Your task to perform on an android device: toggle location history Image 0: 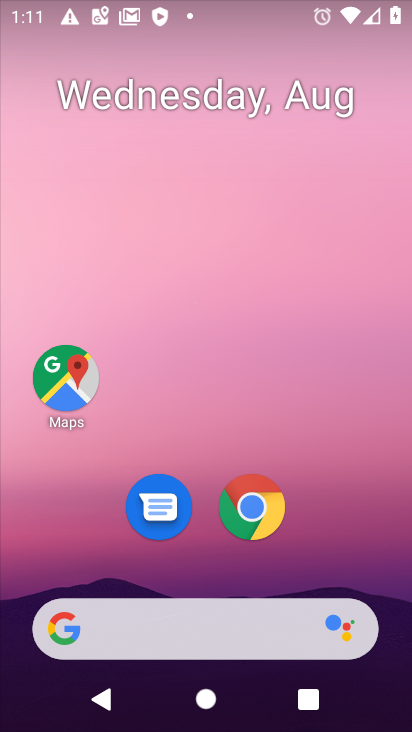
Step 0: drag from (223, 575) to (171, 0)
Your task to perform on an android device: toggle location history Image 1: 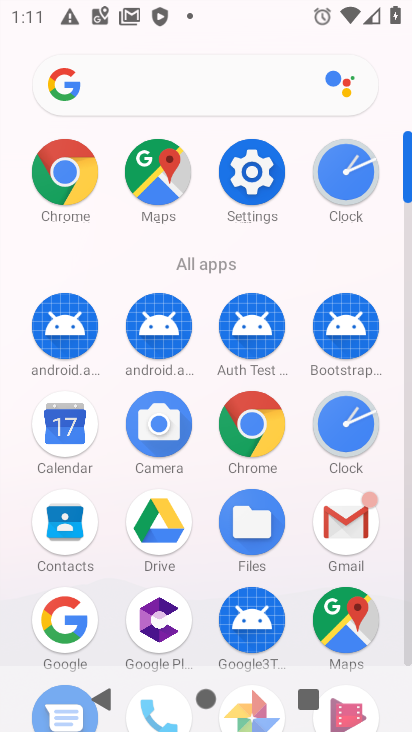
Step 1: click (223, 170)
Your task to perform on an android device: toggle location history Image 2: 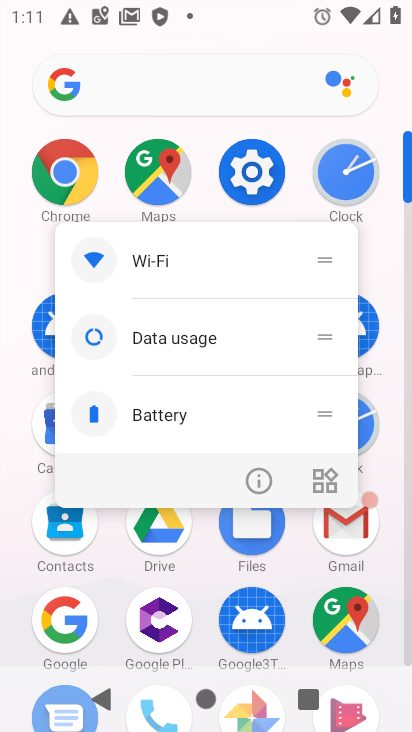
Step 2: click (239, 166)
Your task to perform on an android device: toggle location history Image 3: 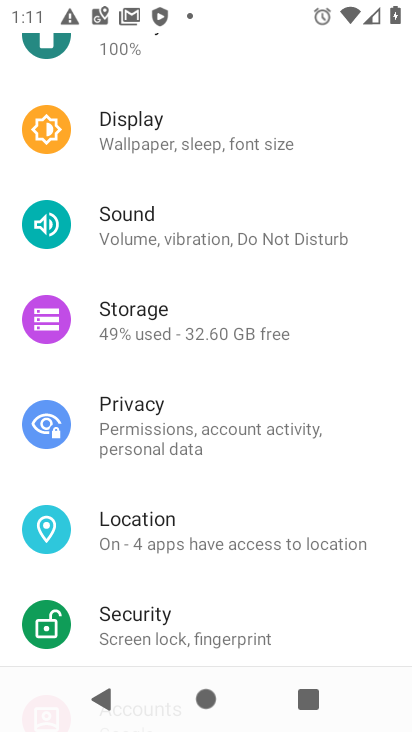
Step 3: click (190, 511)
Your task to perform on an android device: toggle location history Image 4: 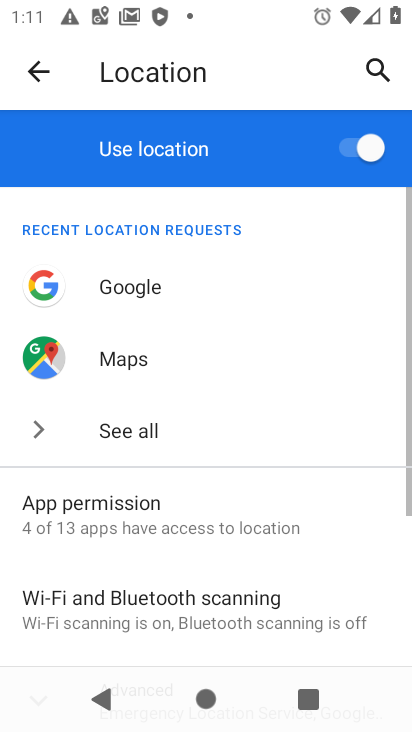
Step 4: drag from (148, 589) to (148, 159)
Your task to perform on an android device: toggle location history Image 5: 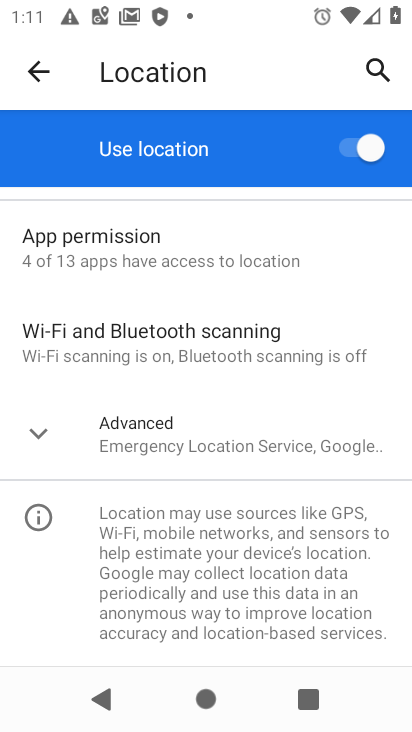
Step 5: click (210, 449)
Your task to perform on an android device: toggle location history Image 6: 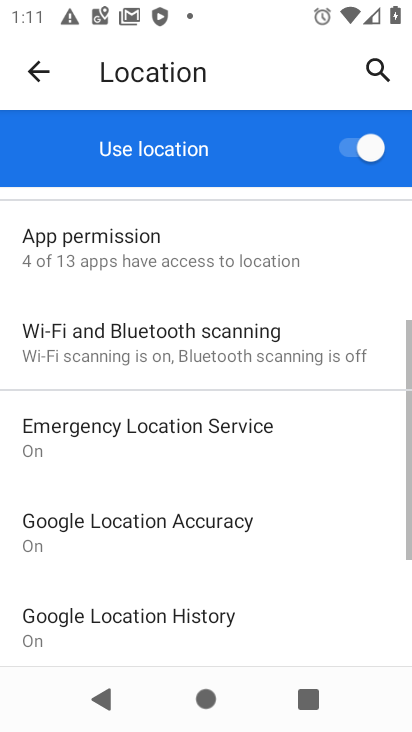
Step 6: drag from (210, 449) to (190, 210)
Your task to perform on an android device: toggle location history Image 7: 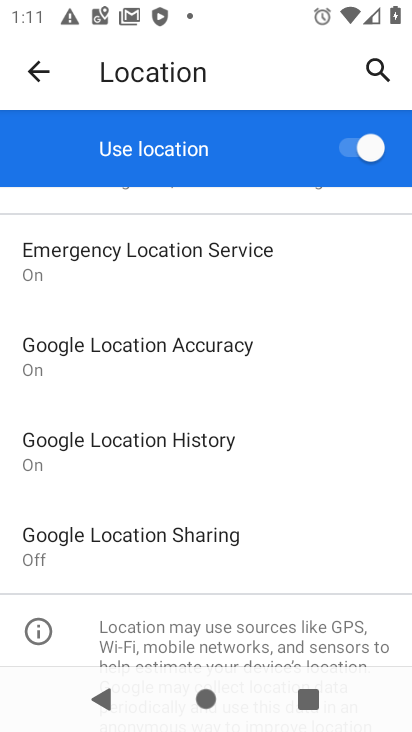
Step 7: click (166, 450)
Your task to perform on an android device: toggle location history Image 8: 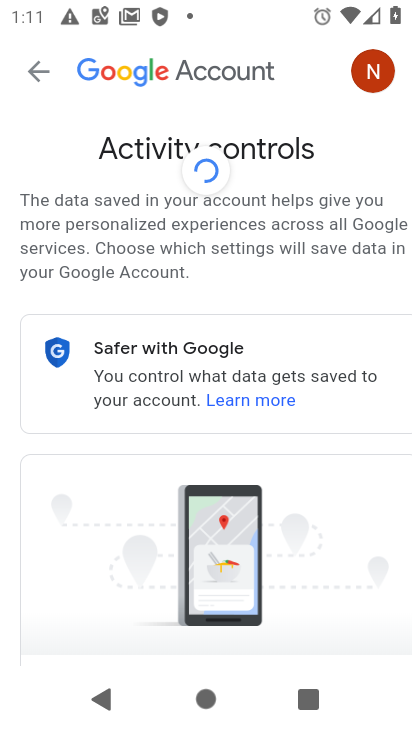
Step 8: drag from (236, 543) to (167, 55)
Your task to perform on an android device: toggle location history Image 9: 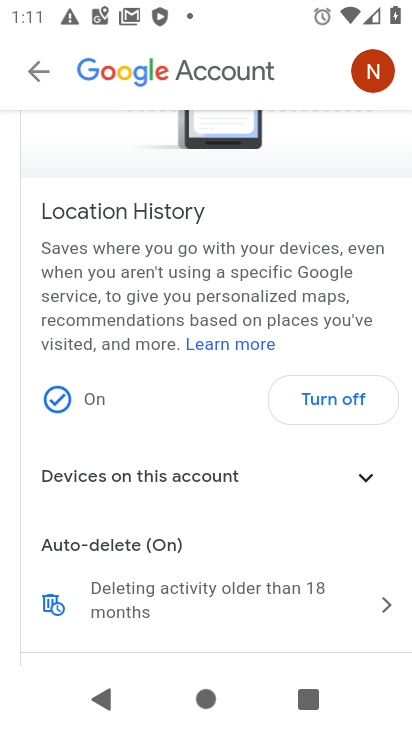
Step 9: click (288, 401)
Your task to perform on an android device: toggle location history Image 10: 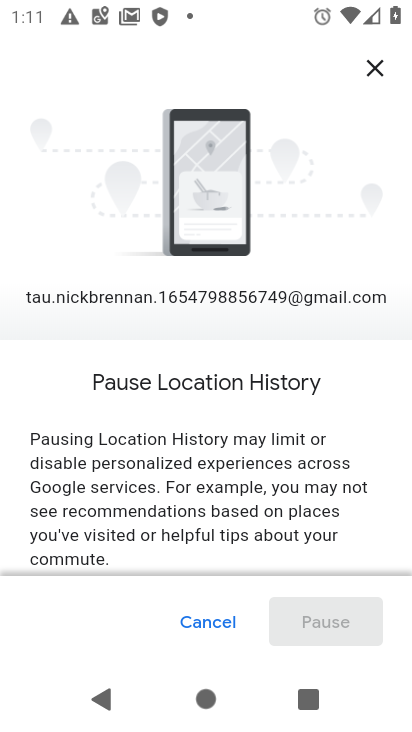
Step 10: drag from (305, 508) to (231, 29)
Your task to perform on an android device: toggle location history Image 11: 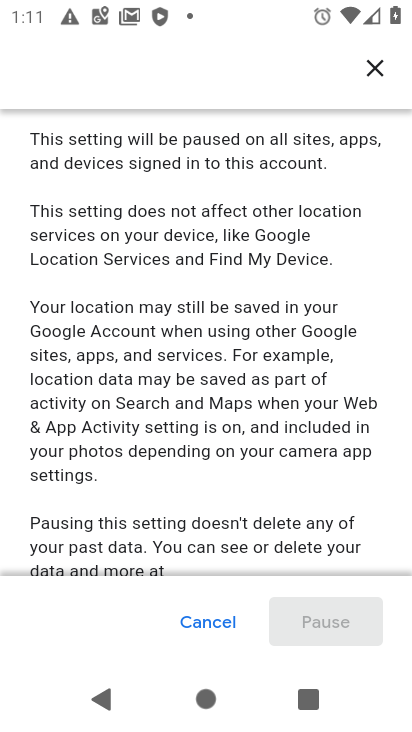
Step 11: drag from (254, 408) to (241, 6)
Your task to perform on an android device: toggle location history Image 12: 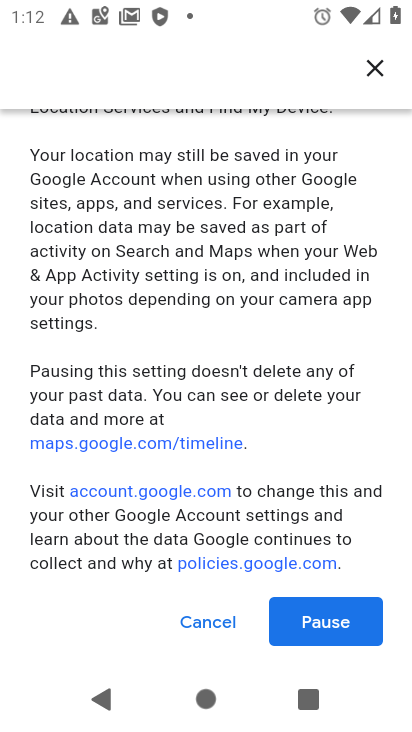
Step 12: click (306, 620)
Your task to perform on an android device: toggle location history Image 13: 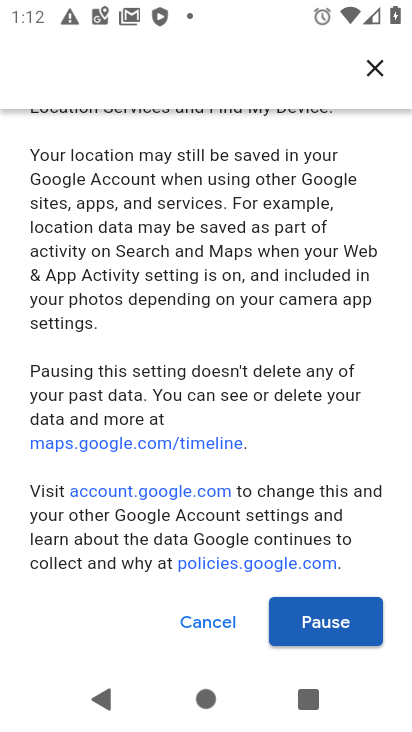
Step 13: click (343, 635)
Your task to perform on an android device: toggle location history Image 14: 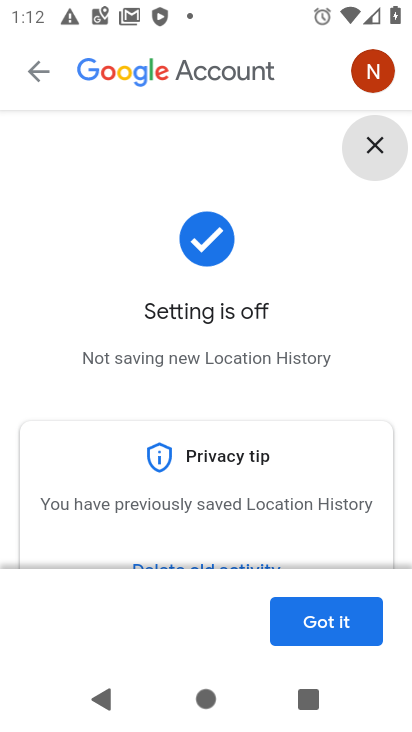
Step 14: click (322, 608)
Your task to perform on an android device: toggle location history Image 15: 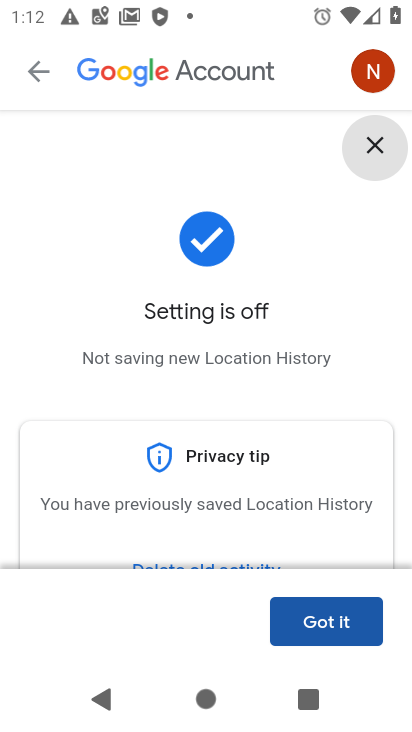
Step 15: task complete